Your task to perform on an android device: stop showing notifications on the lock screen Image 0: 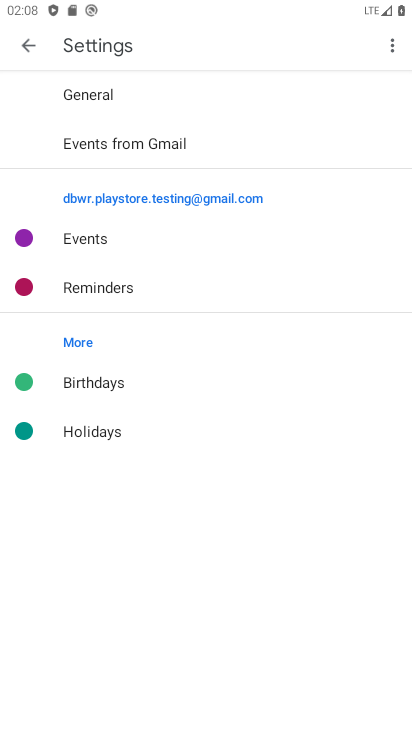
Step 0: press home button
Your task to perform on an android device: stop showing notifications on the lock screen Image 1: 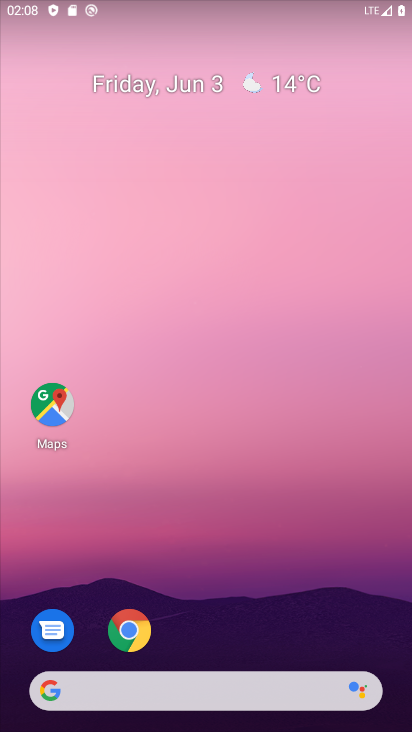
Step 1: drag from (402, 585) to (371, 9)
Your task to perform on an android device: stop showing notifications on the lock screen Image 2: 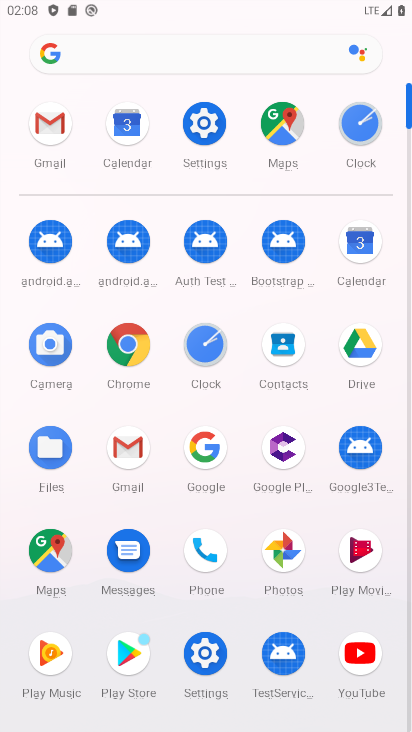
Step 2: click (199, 132)
Your task to perform on an android device: stop showing notifications on the lock screen Image 3: 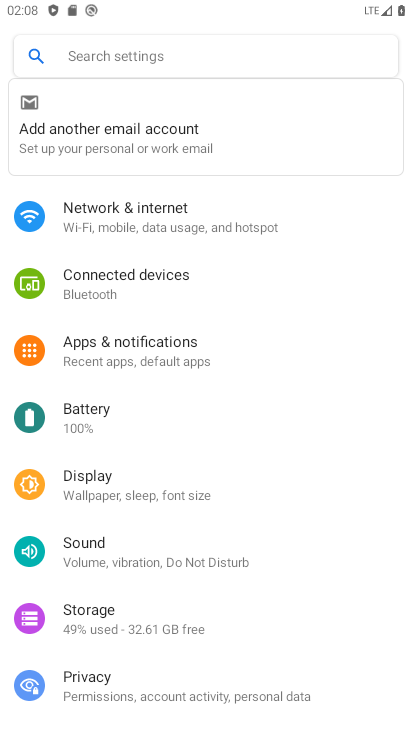
Step 3: click (127, 336)
Your task to perform on an android device: stop showing notifications on the lock screen Image 4: 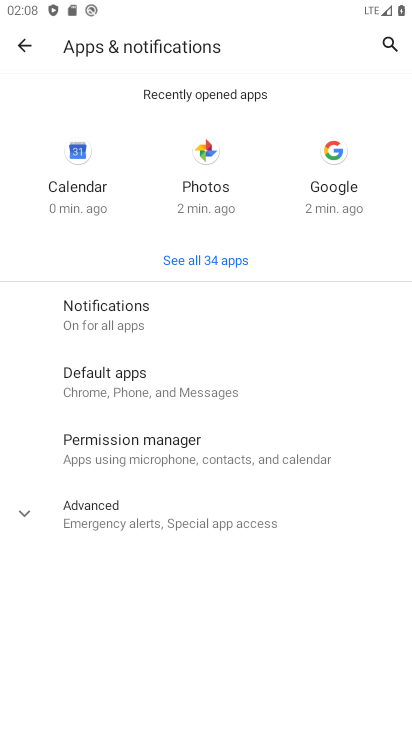
Step 4: click (97, 317)
Your task to perform on an android device: stop showing notifications on the lock screen Image 5: 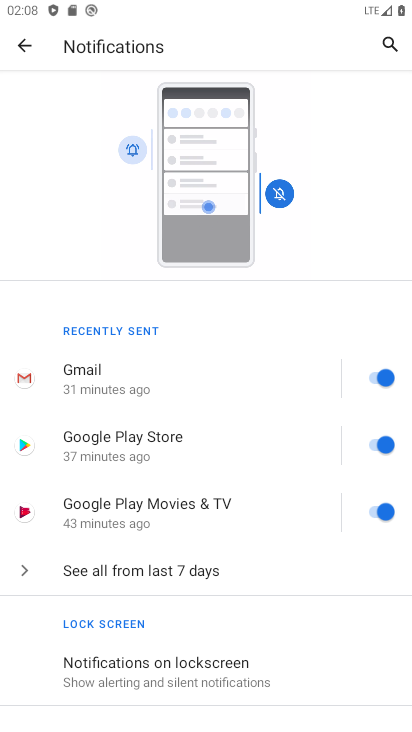
Step 5: click (133, 659)
Your task to perform on an android device: stop showing notifications on the lock screen Image 6: 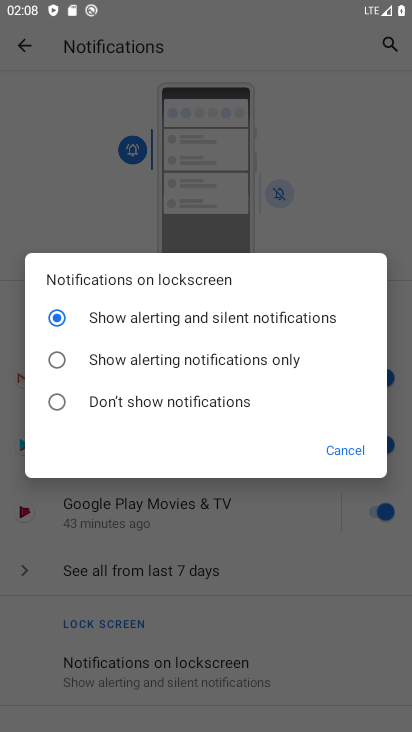
Step 6: click (47, 401)
Your task to perform on an android device: stop showing notifications on the lock screen Image 7: 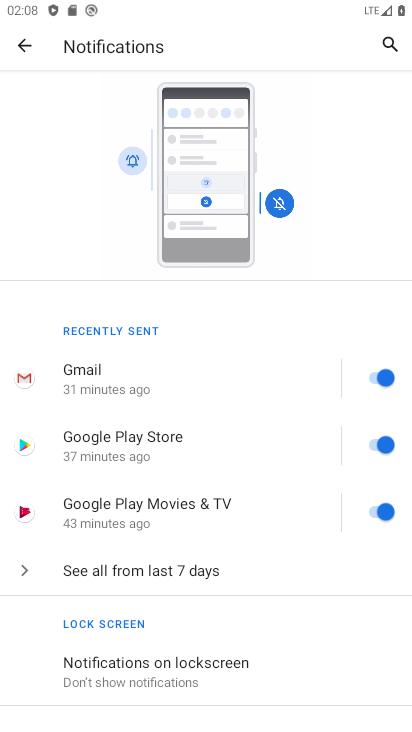
Step 7: task complete